Your task to perform on an android device: Go to Google maps Image 0: 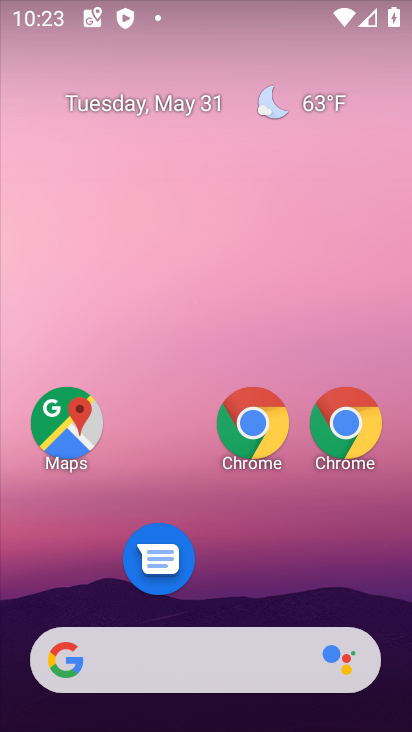
Step 0: drag from (274, 705) to (146, 13)
Your task to perform on an android device: Go to Google maps Image 1: 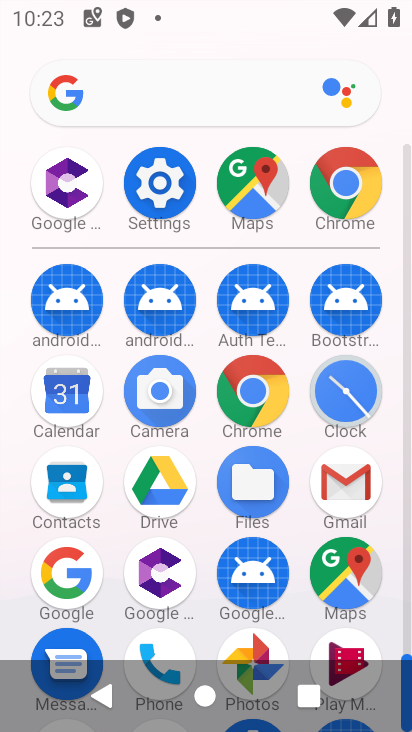
Step 1: click (333, 574)
Your task to perform on an android device: Go to Google maps Image 2: 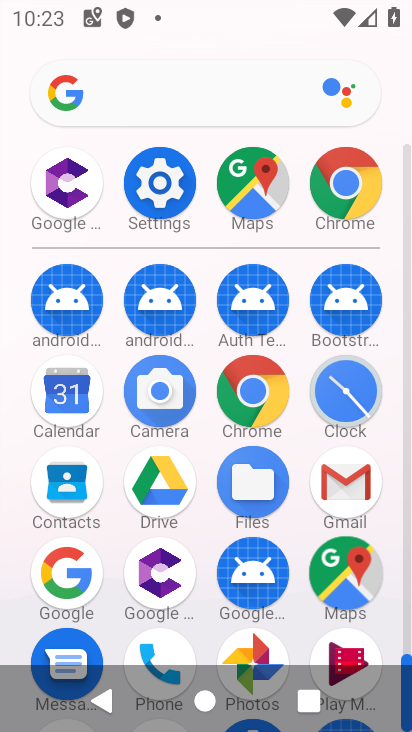
Step 2: click (334, 575)
Your task to perform on an android device: Go to Google maps Image 3: 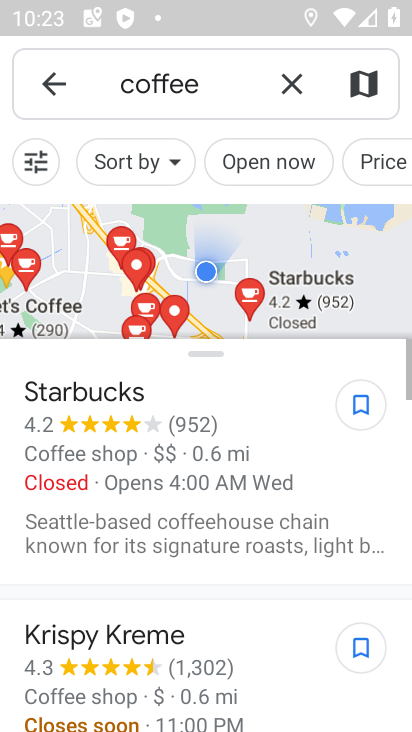
Step 3: click (60, 81)
Your task to perform on an android device: Go to Google maps Image 4: 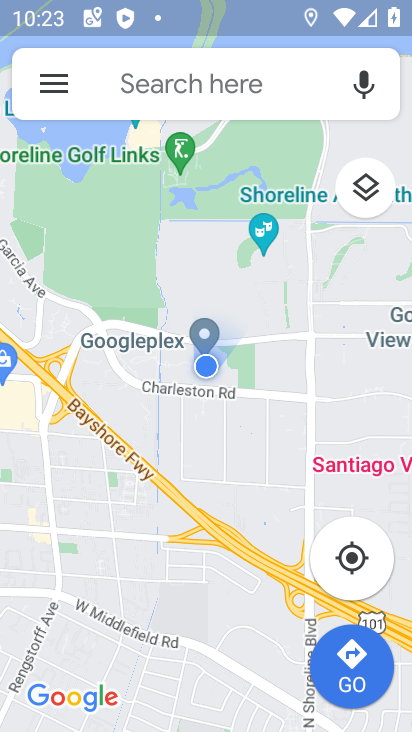
Step 4: task complete